Your task to perform on an android device: open app "VLC for Android" (install if not already installed) and go to login screen Image 0: 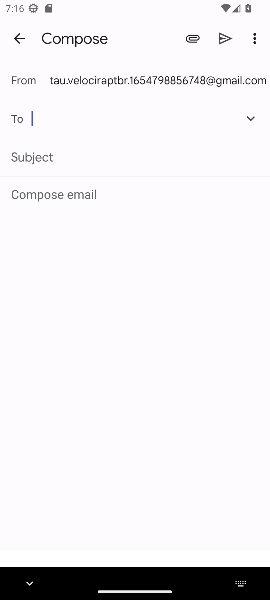
Step 0: press home button
Your task to perform on an android device: open app "VLC for Android" (install if not already installed) and go to login screen Image 1: 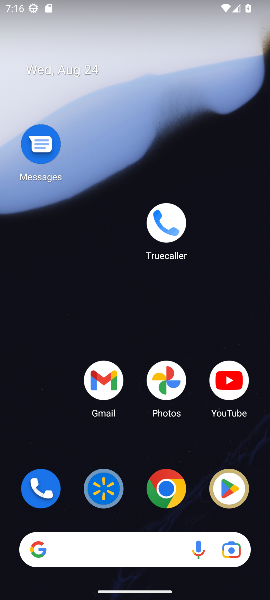
Step 1: click (236, 486)
Your task to perform on an android device: open app "VLC for Android" (install if not already installed) and go to login screen Image 2: 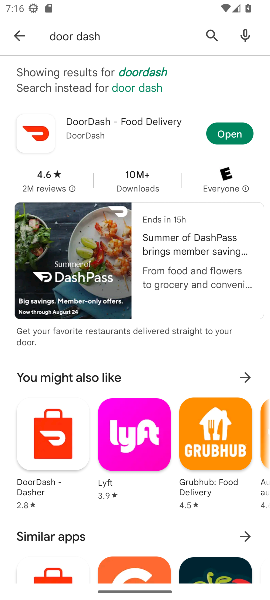
Step 2: click (207, 40)
Your task to perform on an android device: open app "VLC for Android" (install if not already installed) and go to login screen Image 3: 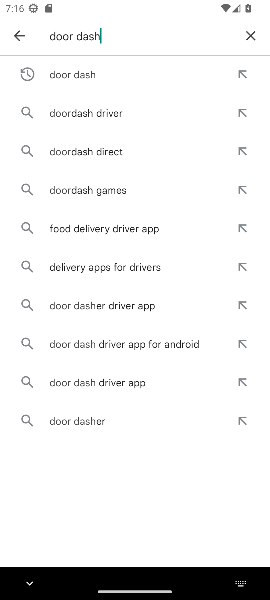
Step 3: click (245, 35)
Your task to perform on an android device: open app "VLC for Android" (install if not already installed) and go to login screen Image 4: 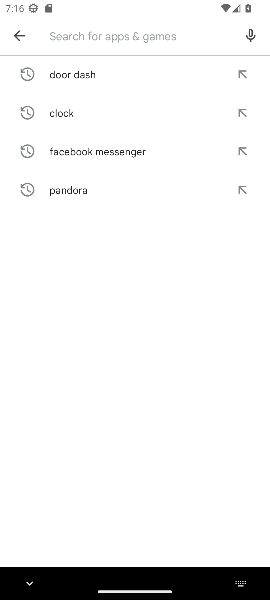
Step 4: type "vlc "
Your task to perform on an android device: open app "VLC for Android" (install if not already installed) and go to login screen Image 5: 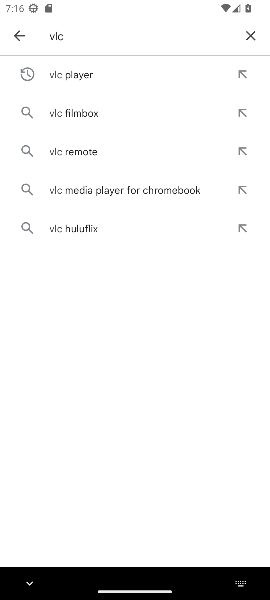
Step 5: click (62, 78)
Your task to perform on an android device: open app "VLC for Android" (install if not already installed) and go to login screen Image 6: 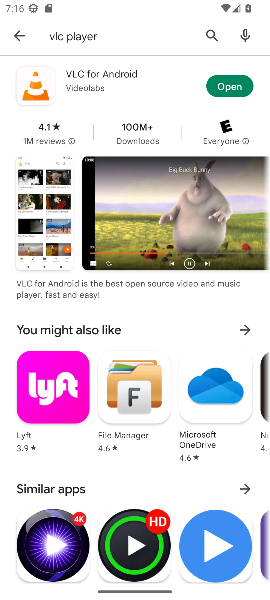
Step 6: click (230, 81)
Your task to perform on an android device: open app "VLC for Android" (install if not already installed) and go to login screen Image 7: 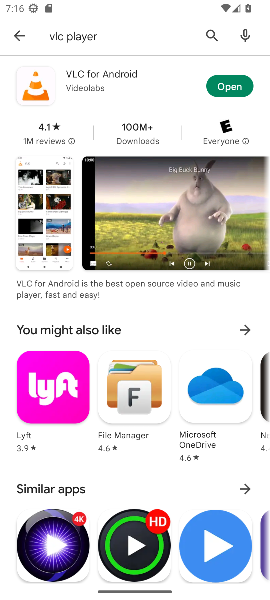
Step 7: task complete